Your task to perform on an android device: Open Google Chrome Image 0: 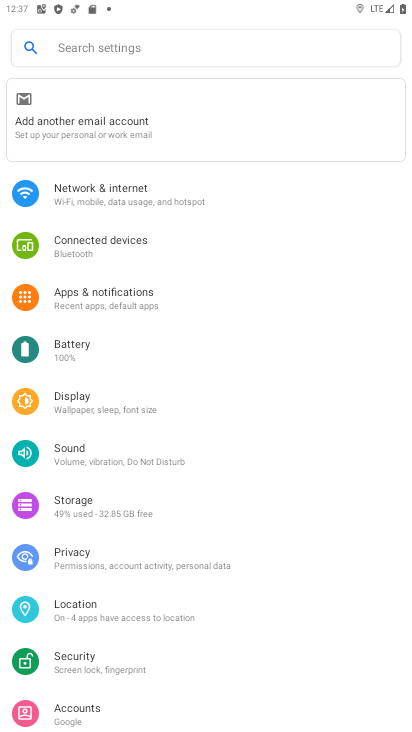
Step 0: press home button
Your task to perform on an android device: Open Google Chrome Image 1: 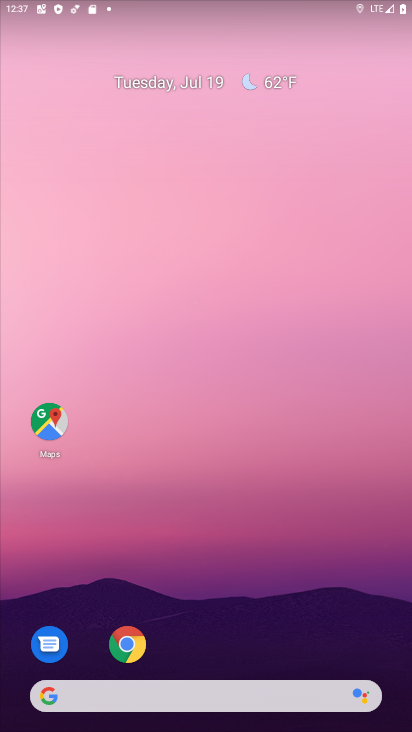
Step 1: click (121, 643)
Your task to perform on an android device: Open Google Chrome Image 2: 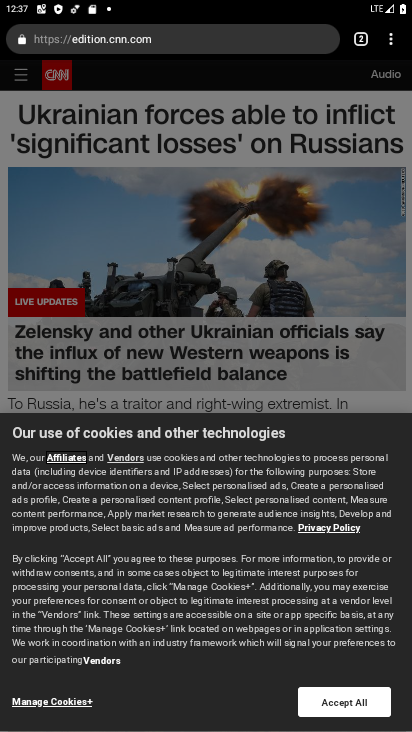
Step 2: task complete